Your task to perform on an android device: search for starred emails in the gmail app Image 0: 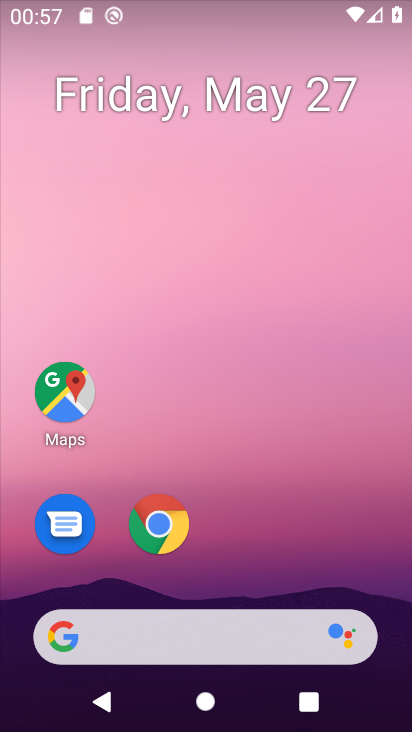
Step 0: drag from (270, 518) to (300, 16)
Your task to perform on an android device: search for starred emails in the gmail app Image 1: 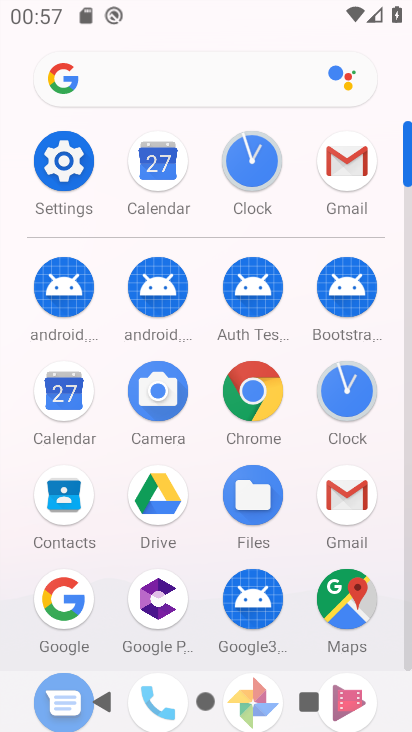
Step 1: click (352, 173)
Your task to perform on an android device: search for starred emails in the gmail app Image 2: 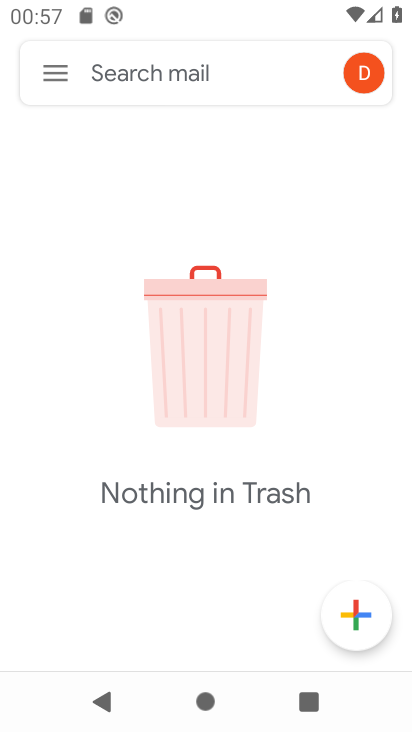
Step 2: click (59, 72)
Your task to perform on an android device: search for starred emails in the gmail app Image 3: 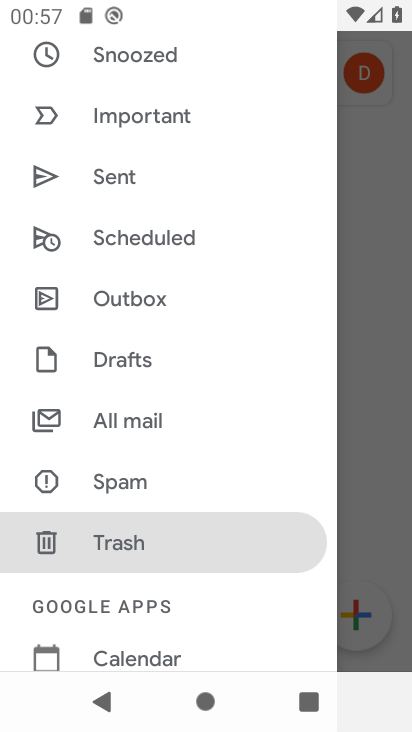
Step 3: drag from (151, 201) to (149, 510)
Your task to perform on an android device: search for starred emails in the gmail app Image 4: 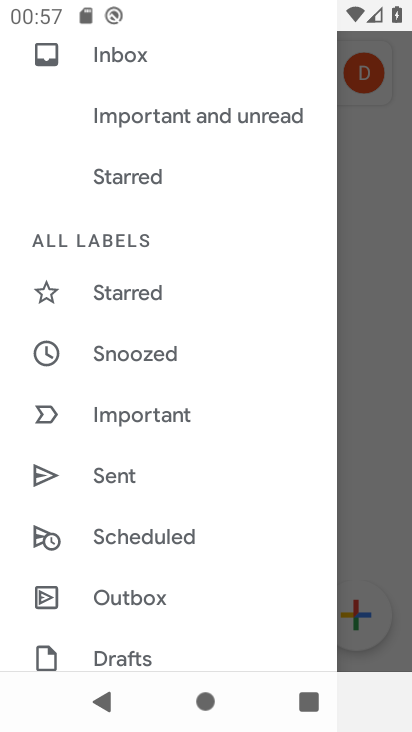
Step 4: click (142, 283)
Your task to perform on an android device: search for starred emails in the gmail app Image 5: 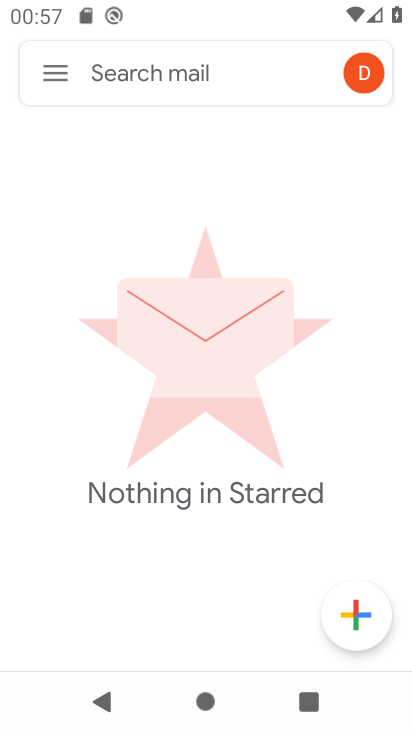
Step 5: task complete